Your task to perform on an android device: Open accessibility settings Image 0: 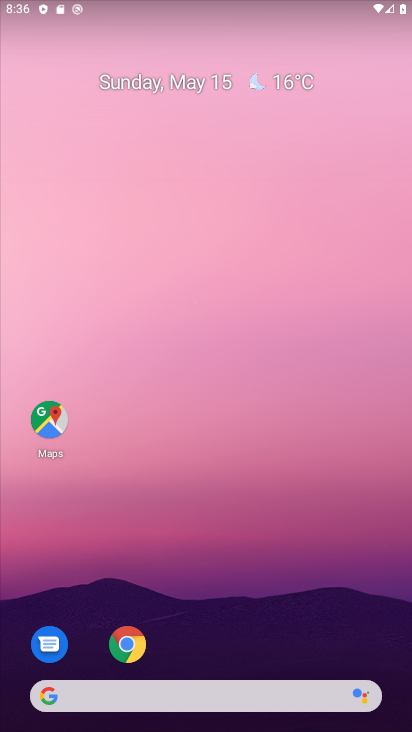
Step 0: drag from (204, 649) to (271, 102)
Your task to perform on an android device: Open accessibility settings Image 1: 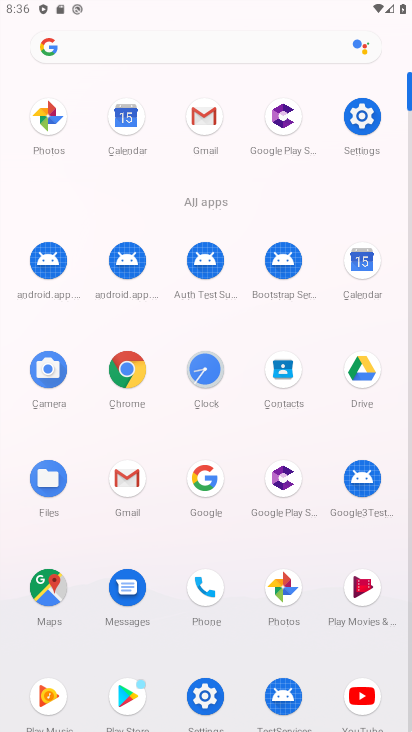
Step 1: click (371, 125)
Your task to perform on an android device: Open accessibility settings Image 2: 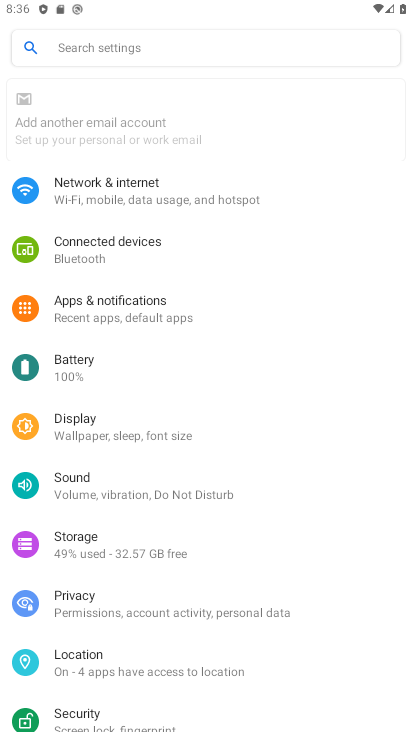
Step 2: drag from (180, 643) to (248, 111)
Your task to perform on an android device: Open accessibility settings Image 3: 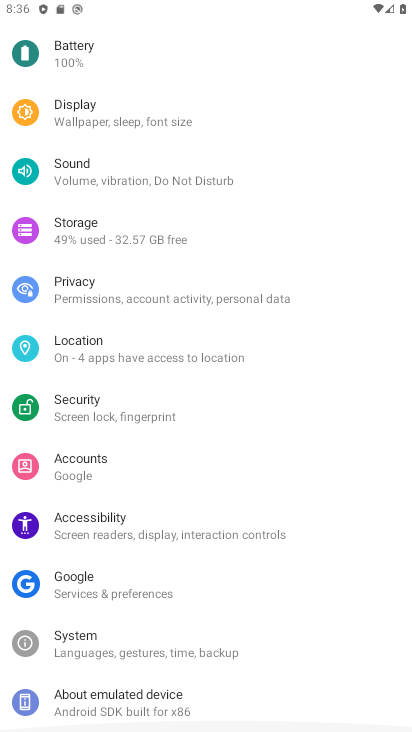
Step 3: drag from (134, 651) to (237, 65)
Your task to perform on an android device: Open accessibility settings Image 4: 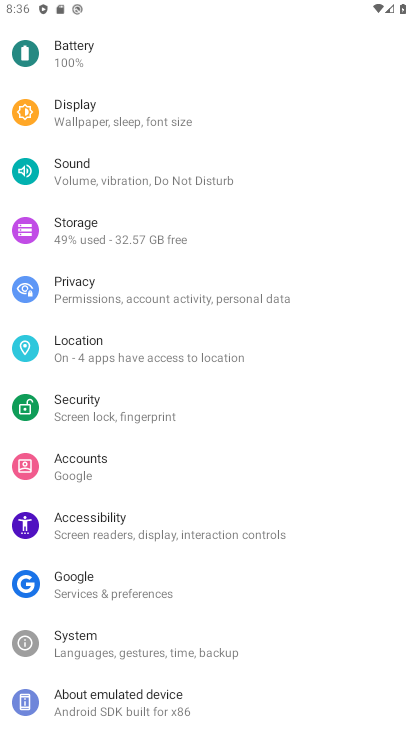
Step 4: click (128, 527)
Your task to perform on an android device: Open accessibility settings Image 5: 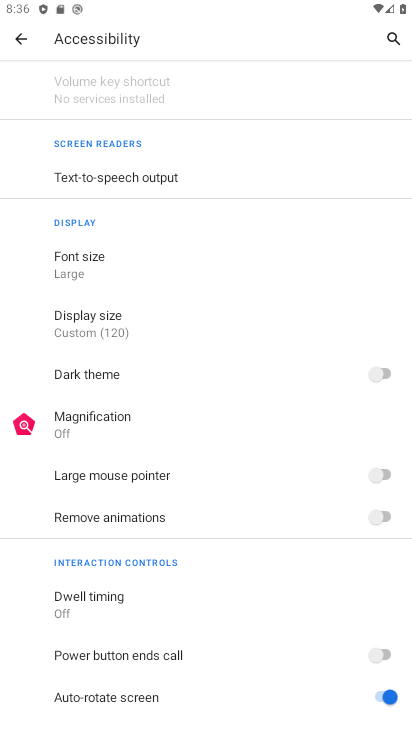
Step 5: task complete